Your task to perform on an android device: Do I have any events this weekend? Image 0: 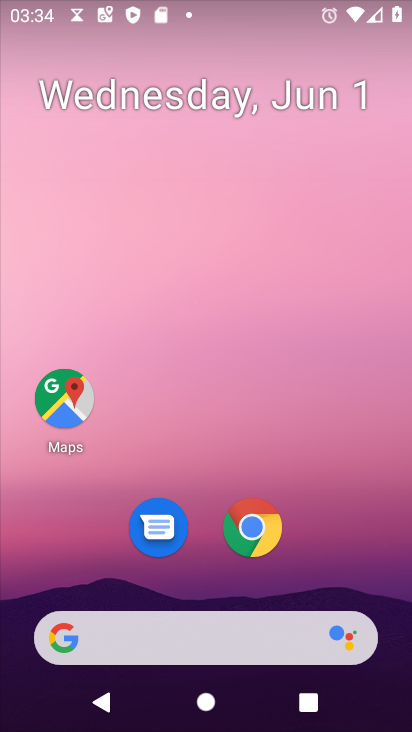
Step 0: drag from (325, 570) to (232, 161)
Your task to perform on an android device: Do I have any events this weekend? Image 1: 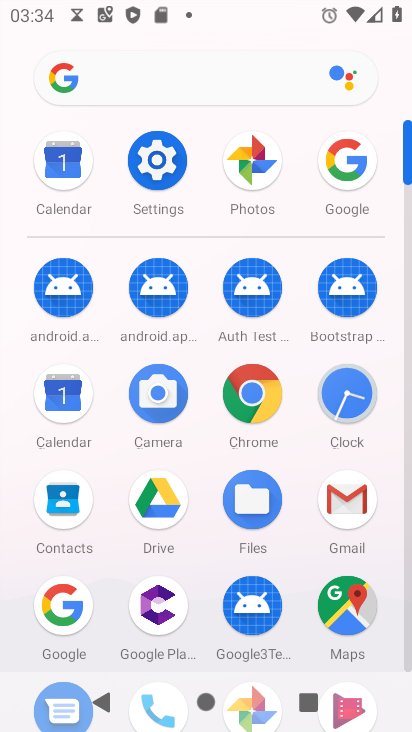
Step 1: click (60, 395)
Your task to perform on an android device: Do I have any events this weekend? Image 2: 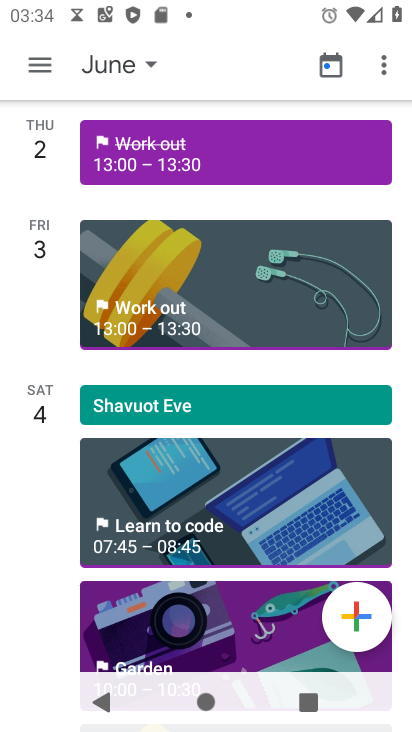
Step 2: click (333, 69)
Your task to perform on an android device: Do I have any events this weekend? Image 3: 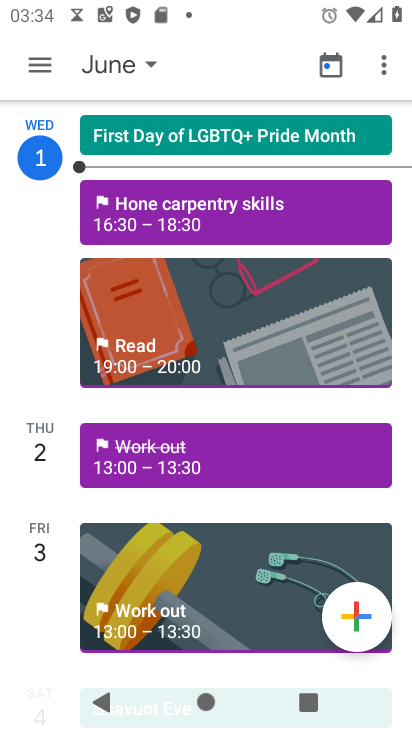
Step 3: click (150, 64)
Your task to perform on an android device: Do I have any events this weekend? Image 4: 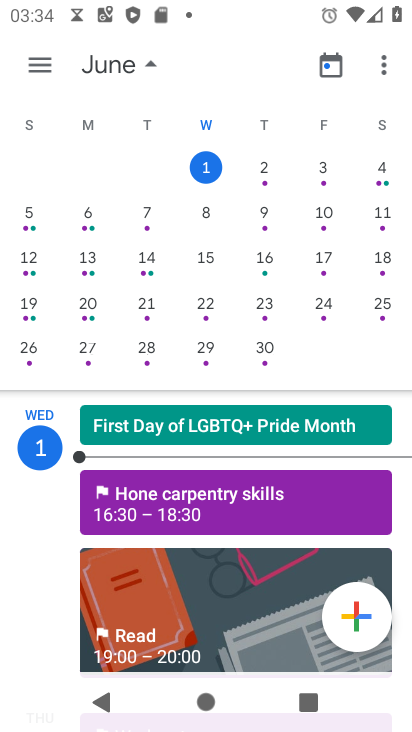
Step 4: click (382, 171)
Your task to perform on an android device: Do I have any events this weekend? Image 5: 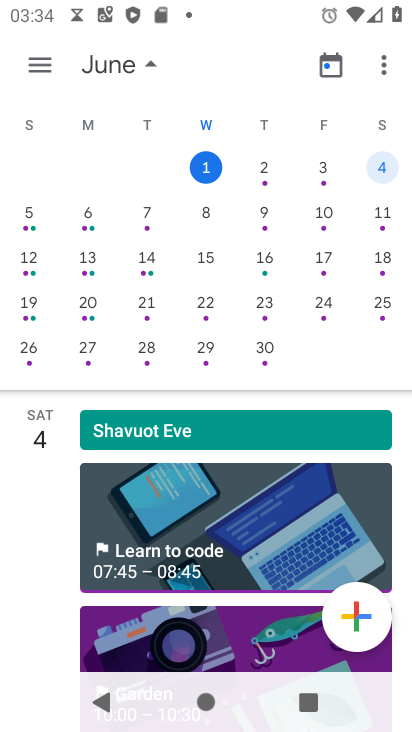
Step 5: click (37, 63)
Your task to perform on an android device: Do I have any events this weekend? Image 6: 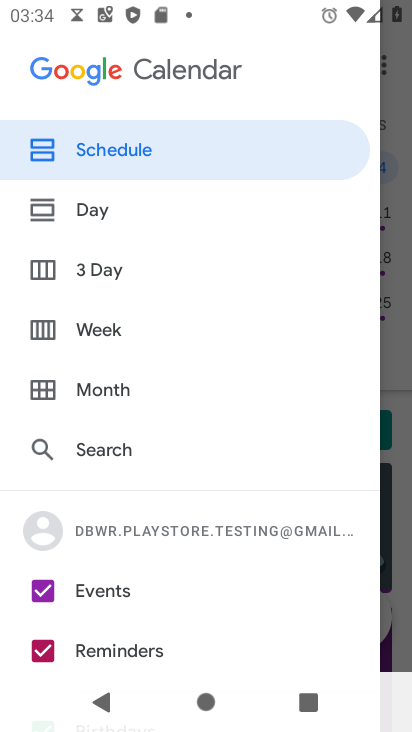
Step 6: click (98, 339)
Your task to perform on an android device: Do I have any events this weekend? Image 7: 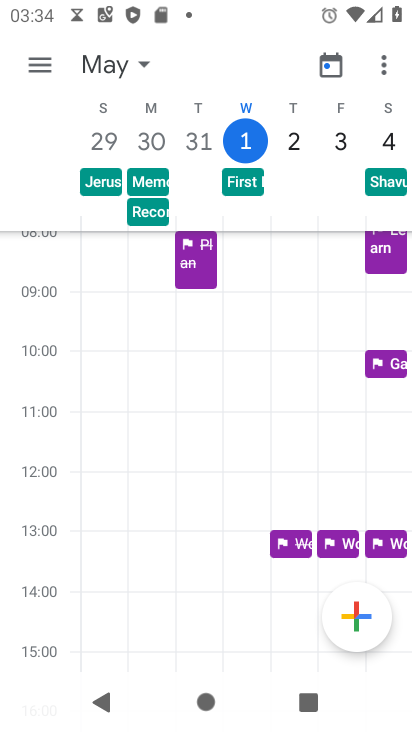
Step 7: task complete